Your task to perform on an android device: turn on bluetooth scan Image 0: 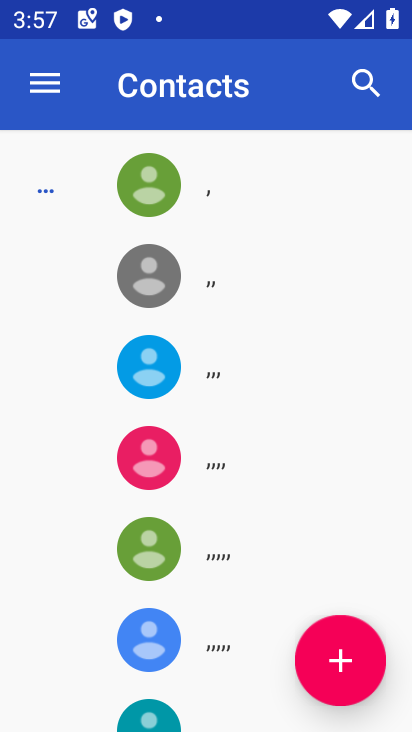
Step 0: press home button
Your task to perform on an android device: turn on bluetooth scan Image 1: 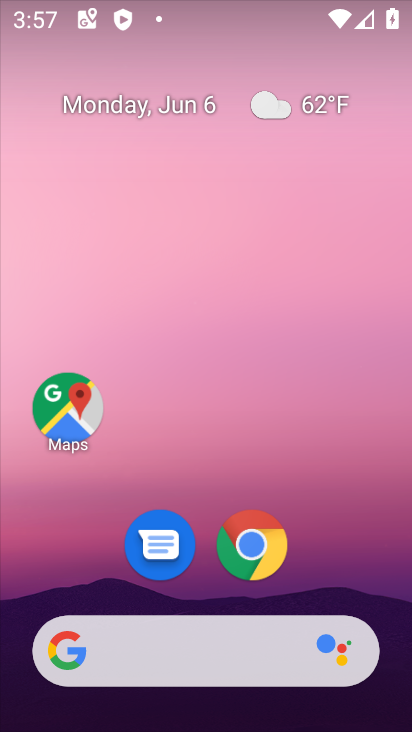
Step 1: drag from (200, 681) to (184, 172)
Your task to perform on an android device: turn on bluetooth scan Image 2: 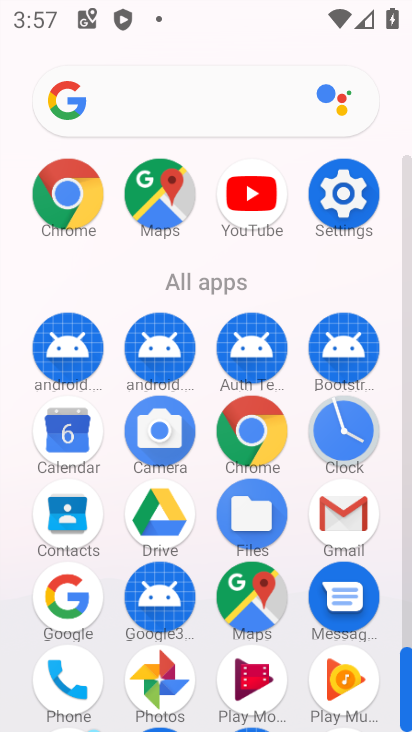
Step 2: click (349, 188)
Your task to perform on an android device: turn on bluetooth scan Image 3: 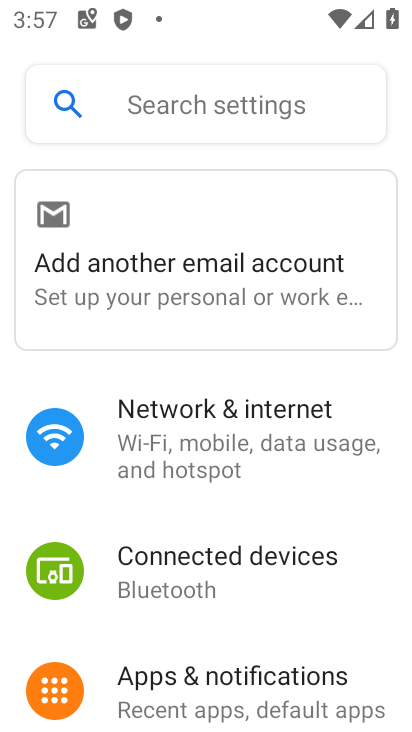
Step 3: drag from (270, 696) to (268, 252)
Your task to perform on an android device: turn on bluetooth scan Image 4: 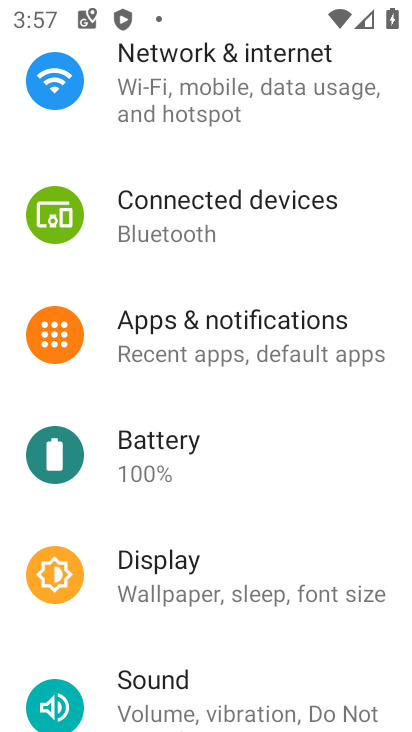
Step 4: drag from (172, 640) to (173, 283)
Your task to perform on an android device: turn on bluetooth scan Image 5: 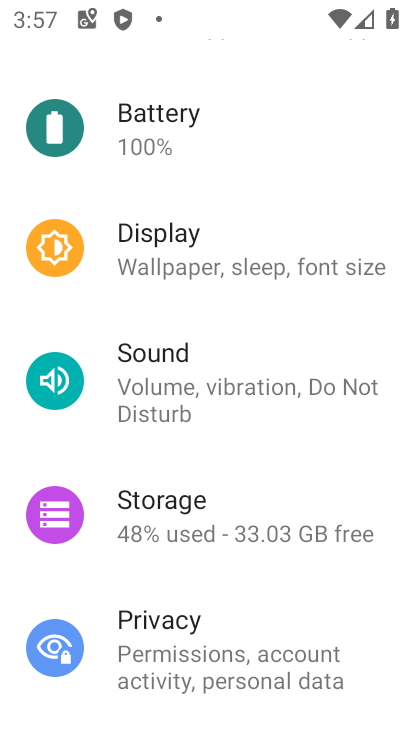
Step 5: drag from (158, 357) to (166, 170)
Your task to perform on an android device: turn on bluetooth scan Image 6: 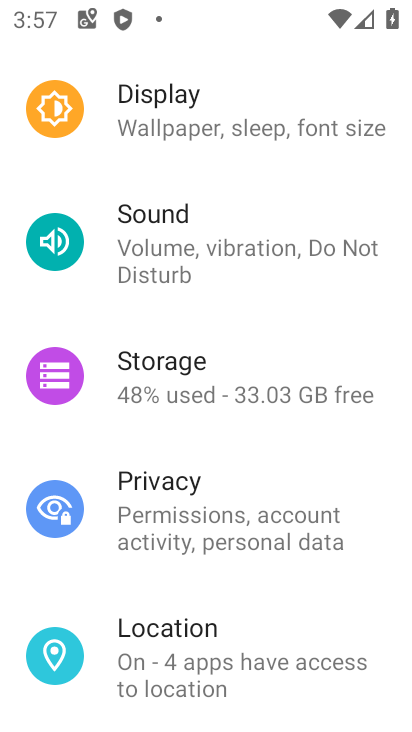
Step 6: click (185, 627)
Your task to perform on an android device: turn on bluetooth scan Image 7: 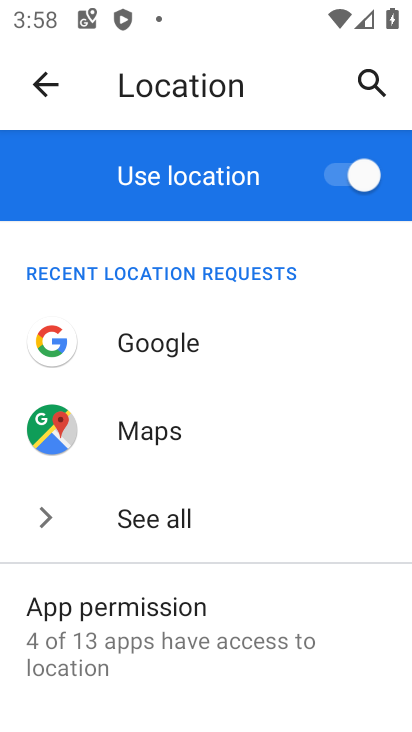
Step 7: drag from (202, 680) to (227, 240)
Your task to perform on an android device: turn on bluetooth scan Image 8: 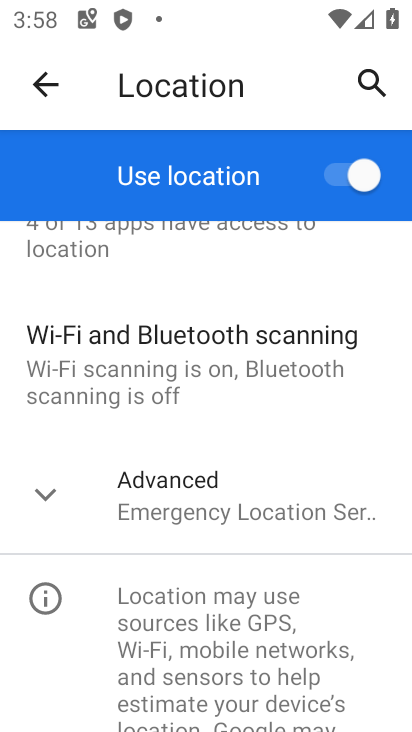
Step 8: click (178, 341)
Your task to perform on an android device: turn on bluetooth scan Image 9: 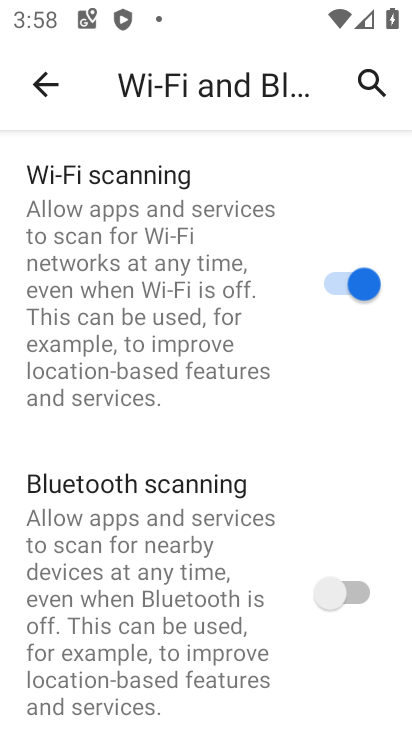
Step 9: click (354, 586)
Your task to perform on an android device: turn on bluetooth scan Image 10: 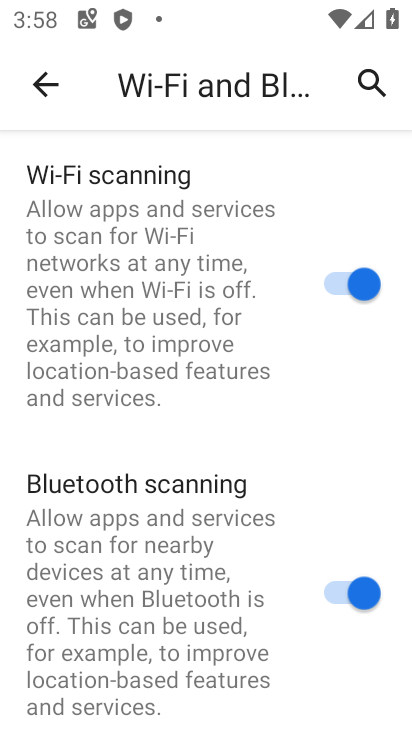
Step 10: task complete